Your task to perform on an android device: Open Wikipedia Image 0: 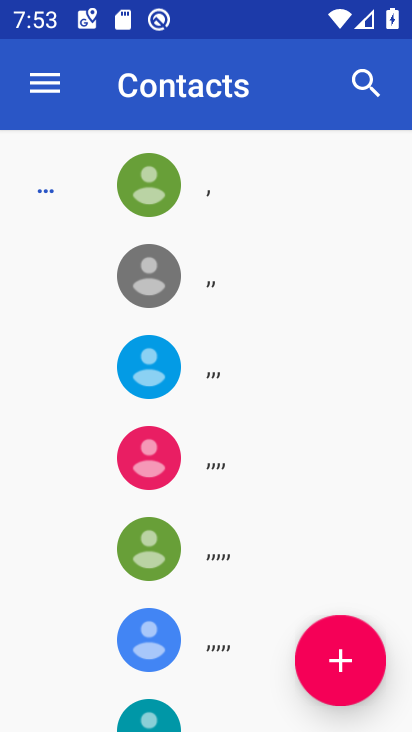
Step 0: press home button
Your task to perform on an android device: Open Wikipedia Image 1: 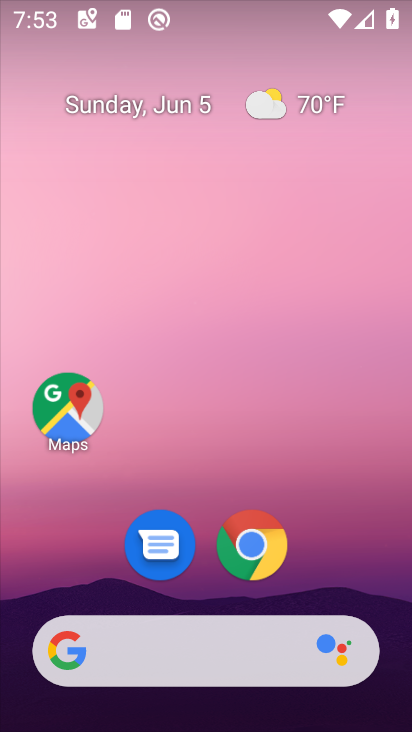
Step 1: drag from (353, 611) to (391, 295)
Your task to perform on an android device: Open Wikipedia Image 2: 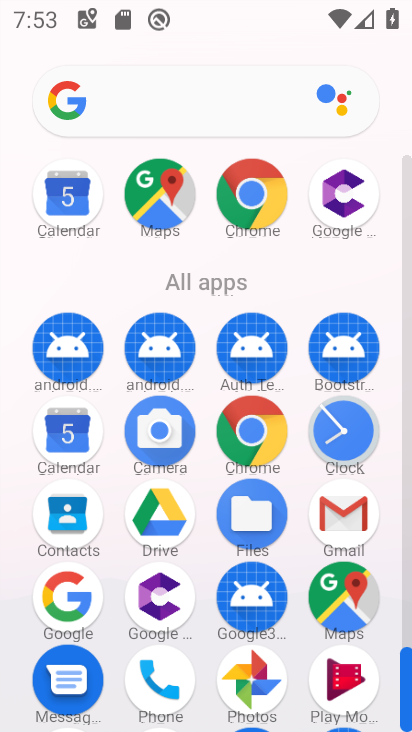
Step 2: click (269, 209)
Your task to perform on an android device: Open Wikipedia Image 3: 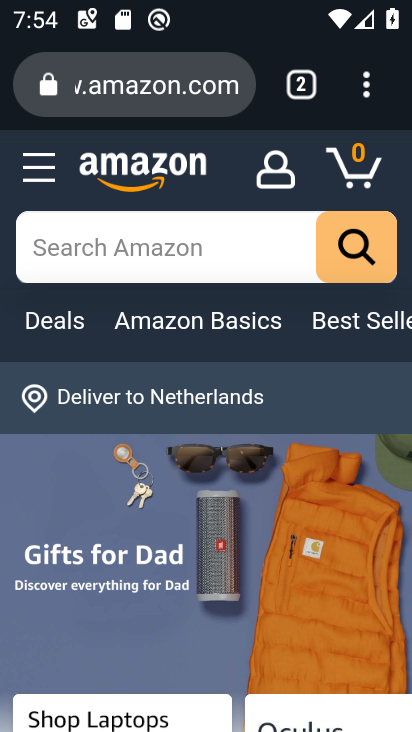
Step 3: click (220, 108)
Your task to perform on an android device: Open Wikipedia Image 4: 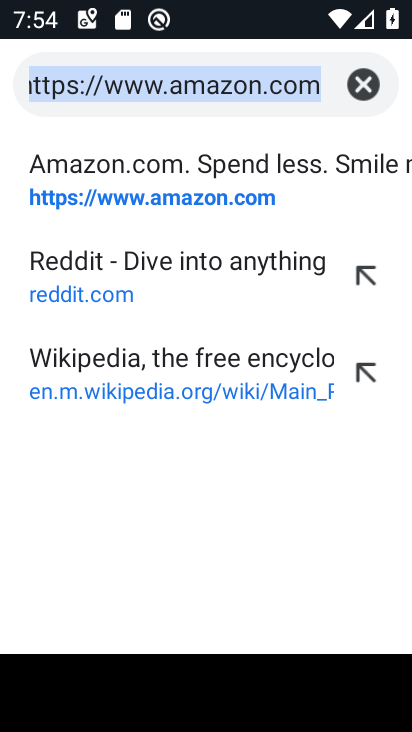
Step 4: click (249, 370)
Your task to perform on an android device: Open Wikipedia Image 5: 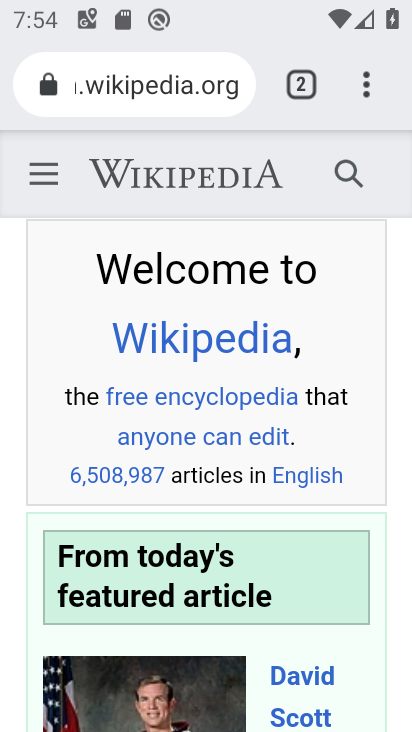
Step 5: task complete